Your task to perform on an android device: Show me recent news Image 0: 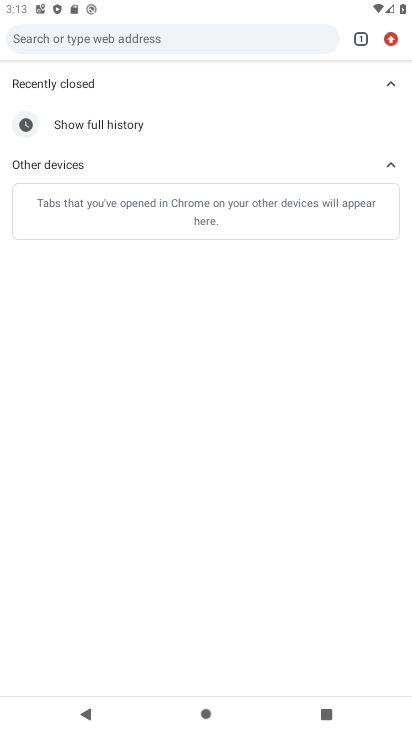
Step 0: press home button
Your task to perform on an android device: Show me recent news Image 1: 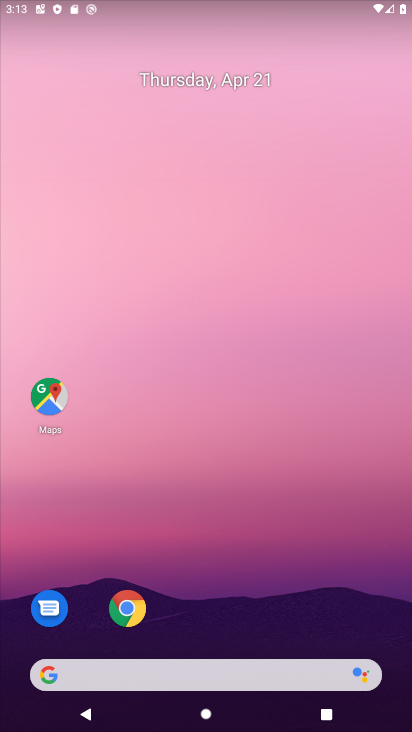
Step 1: click (137, 610)
Your task to perform on an android device: Show me recent news Image 2: 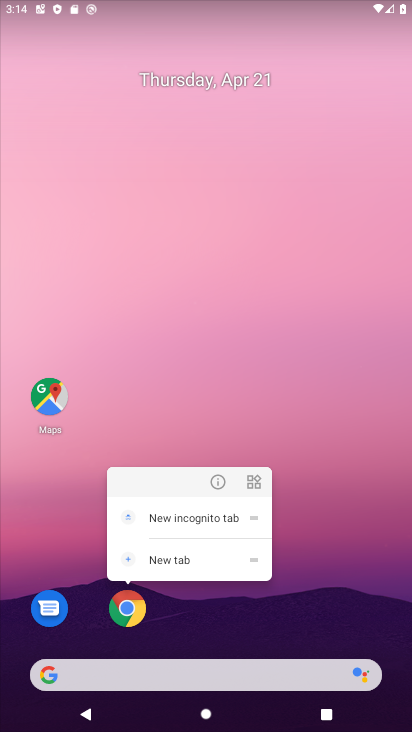
Step 2: drag from (316, 619) to (304, 113)
Your task to perform on an android device: Show me recent news Image 3: 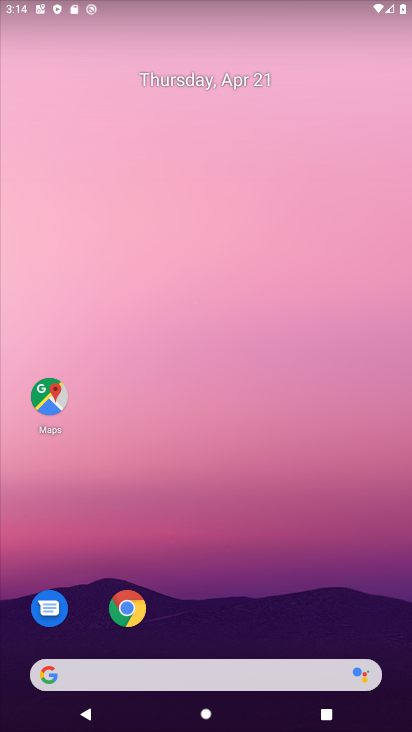
Step 3: drag from (238, 576) to (174, 167)
Your task to perform on an android device: Show me recent news Image 4: 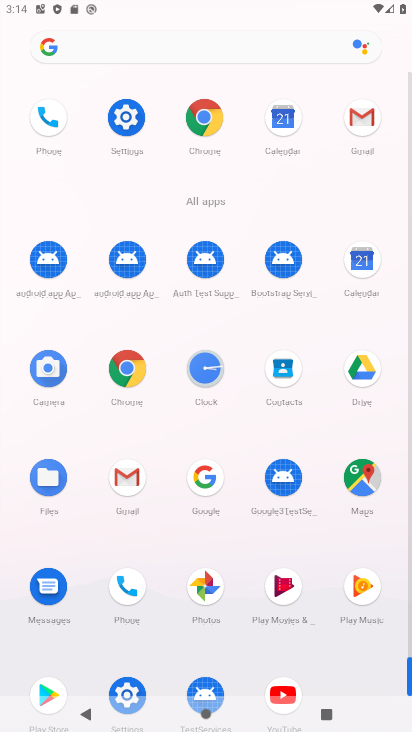
Step 4: click (210, 512)
Your task to perform on an android device: Show me recent news Image 5: 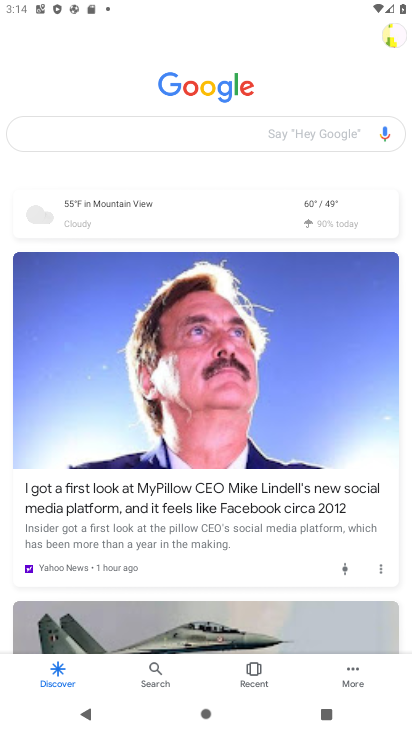
Step 5: task complete